Your task to perform on an android device: change the upload size in google photos Image 0: 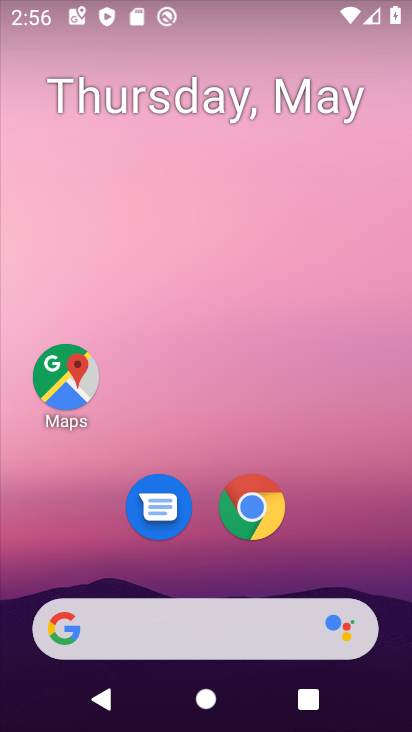
Step 0: drag from (396, 595) to (298, 172)
Your task to perform on an android device: change the upload size in google photos Image 1: 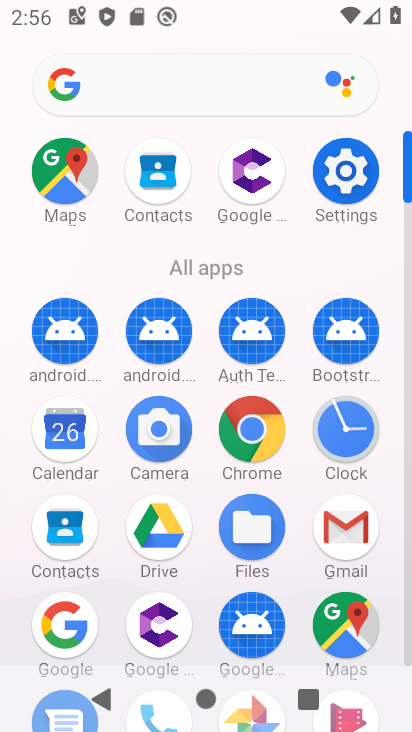
Step 1: click (407, 657)
Your task to perform on an android device: change the upload size in google photos Image 2: 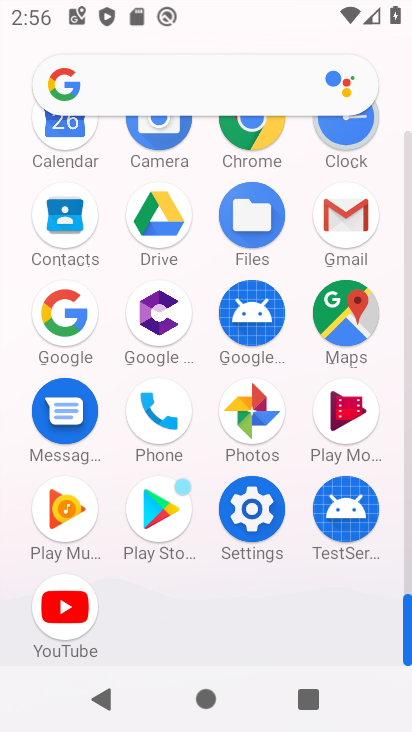
Step 2: click (257, 409)
Your task to perform on an android device: change the upload size in google photos Image 3: 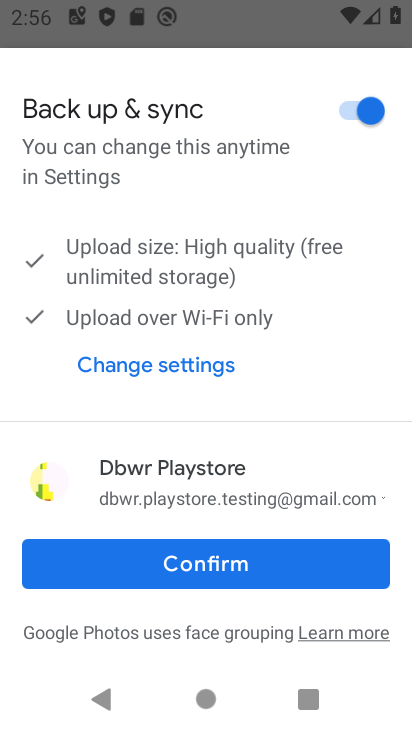
Step 3: click (298, 575)
Your task to perform on an android device: change the upload size in google photos Image 4: 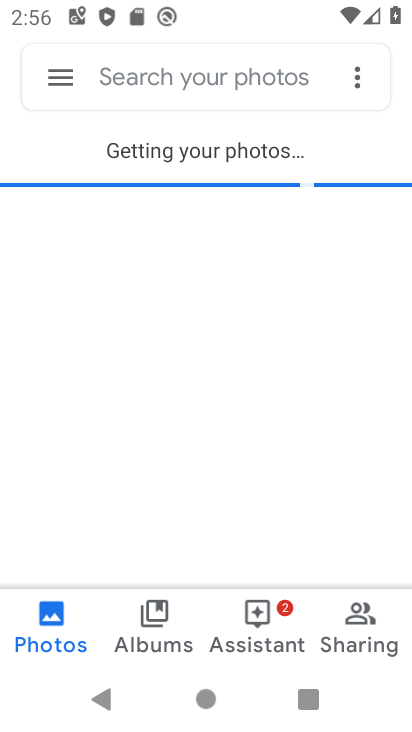
Step 4: click (62, 74)
Your task to perform on an android device: change the upload size in google photos Image 5: 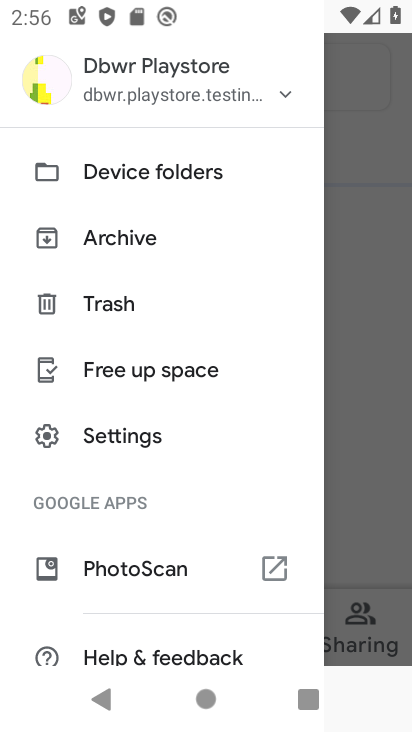
Step 5: click (144, 445)
Your task to perform on an android device: change the upload size in google photos Image 6: 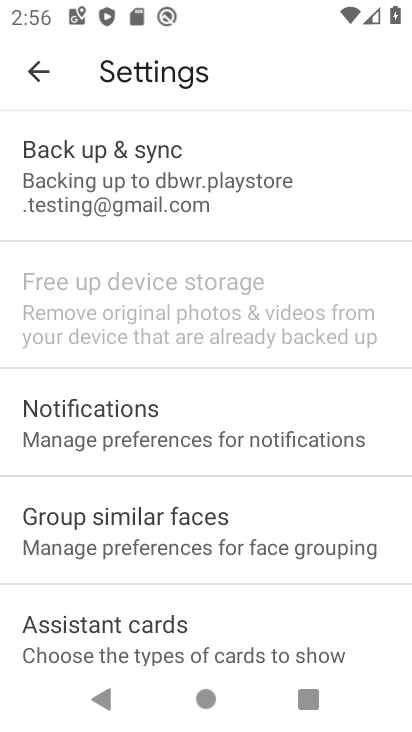
Step 6: click (208, 178)
Your task to perform on an android device: change the upload size in google photos Image 7: 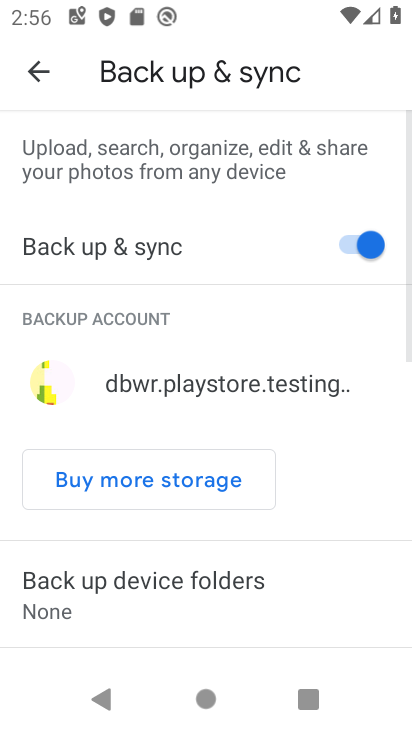
Step 7: drag from (192, 590) to (154, 212)
Your task to perform on an android device: change the upload size in google photos Image 8: 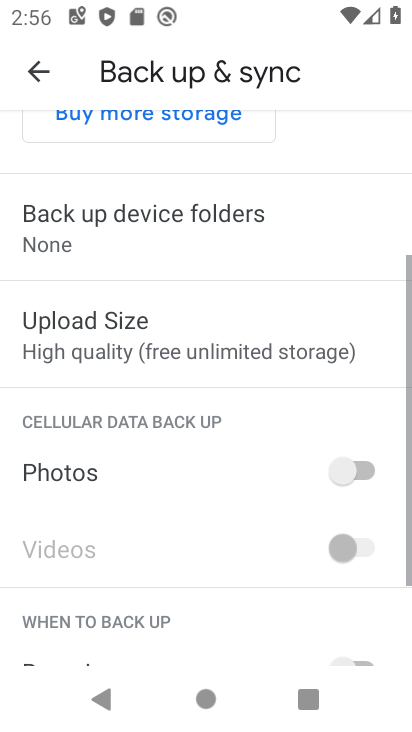
Step 8: click (176, 355)
Your task to perform on an android device: change the upload size in google photos Image 9: 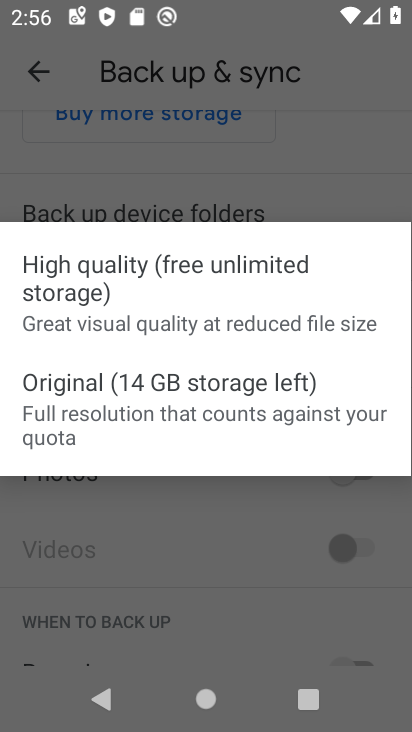
Step 9: click (206, 407)
Your task to perform on an android device: change the upload size in google photos Image 10: 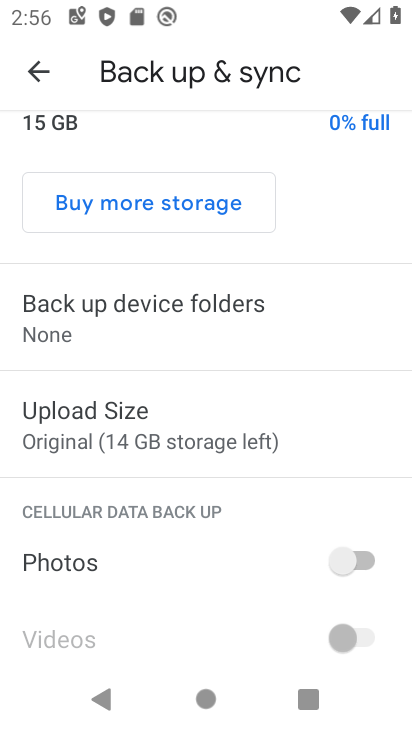
Step 10: task complete